Your task to perform on an android device: toggle wifi Image 0: 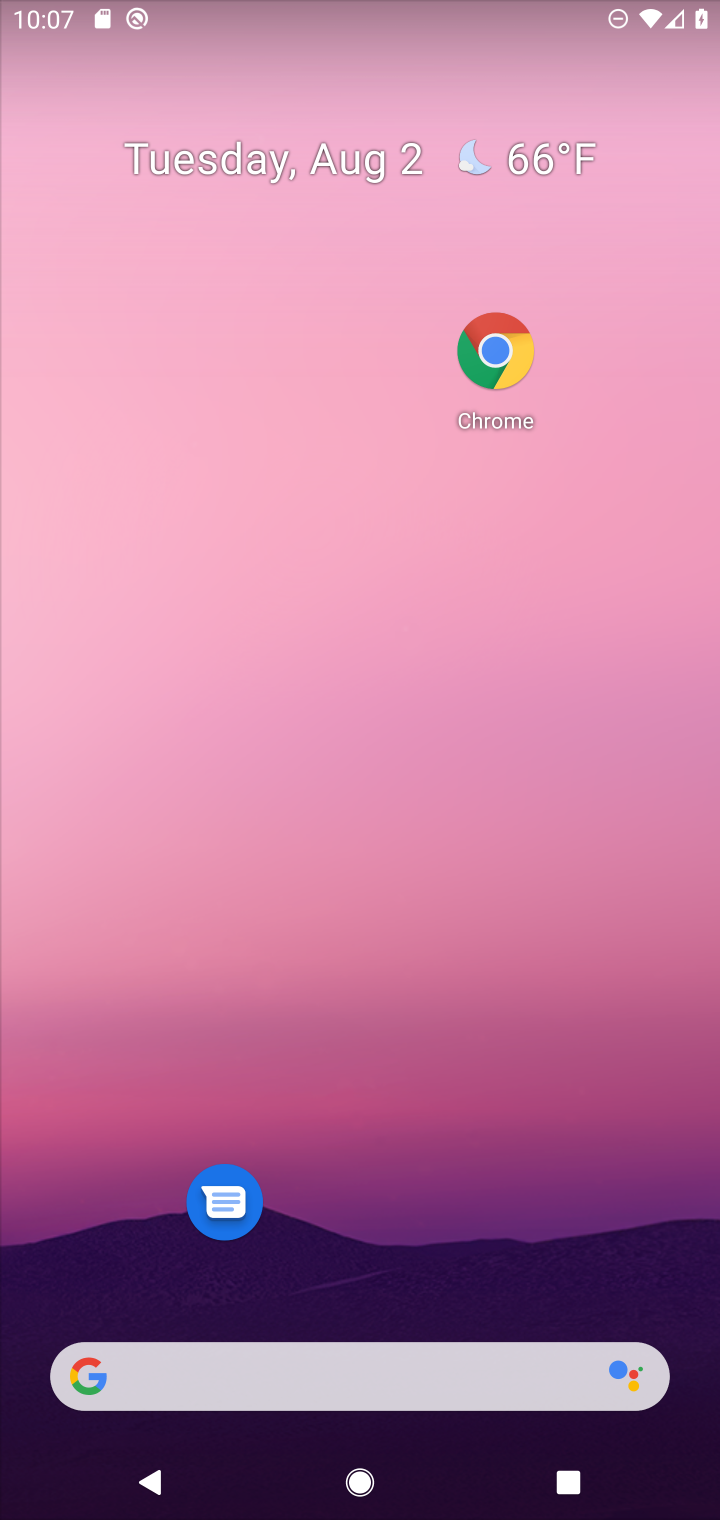
Step 0: drag from (398, 1090) to (381, 87)
Your task to perform on an android device: toggle wifi Image 1: 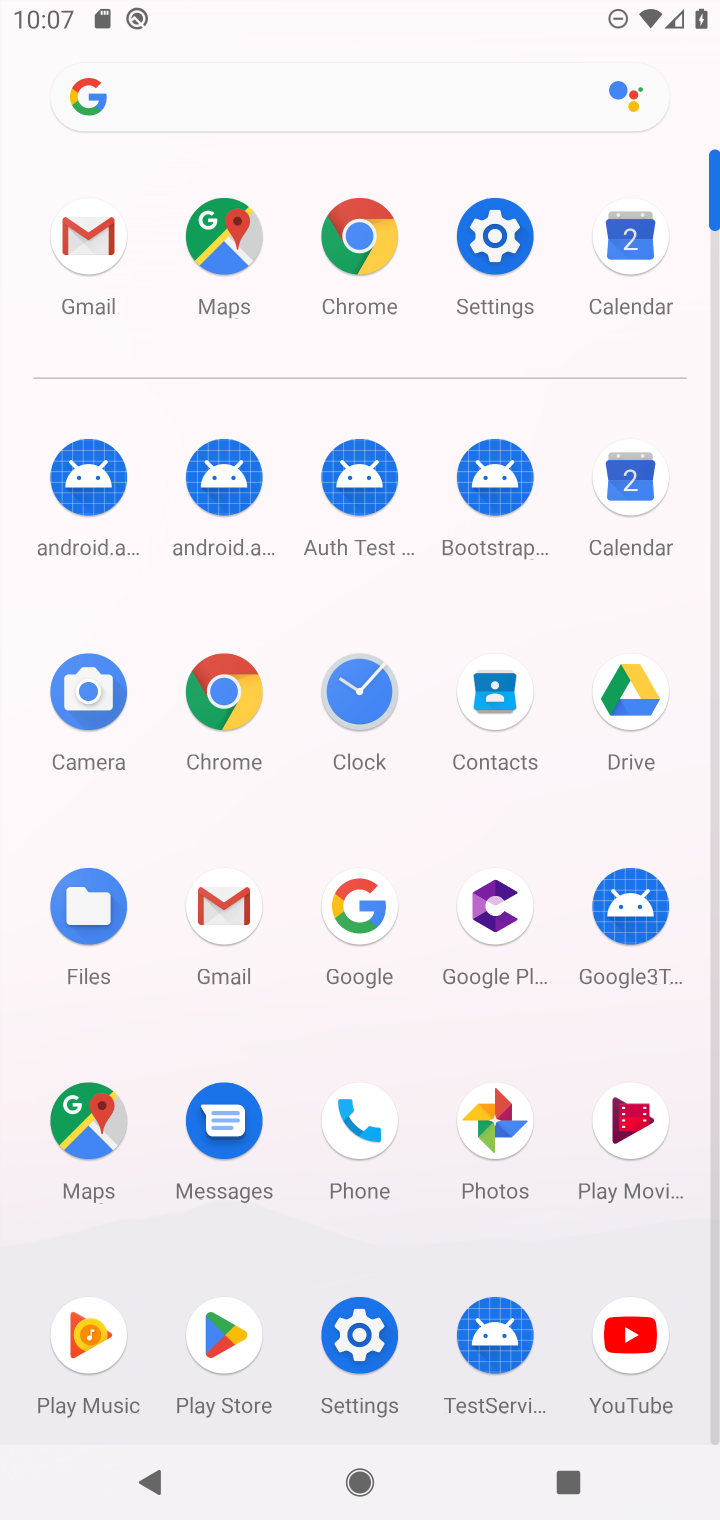
Step 1: click (498, 233)
Your task to perform on an android device: toggle wifi Image 2: 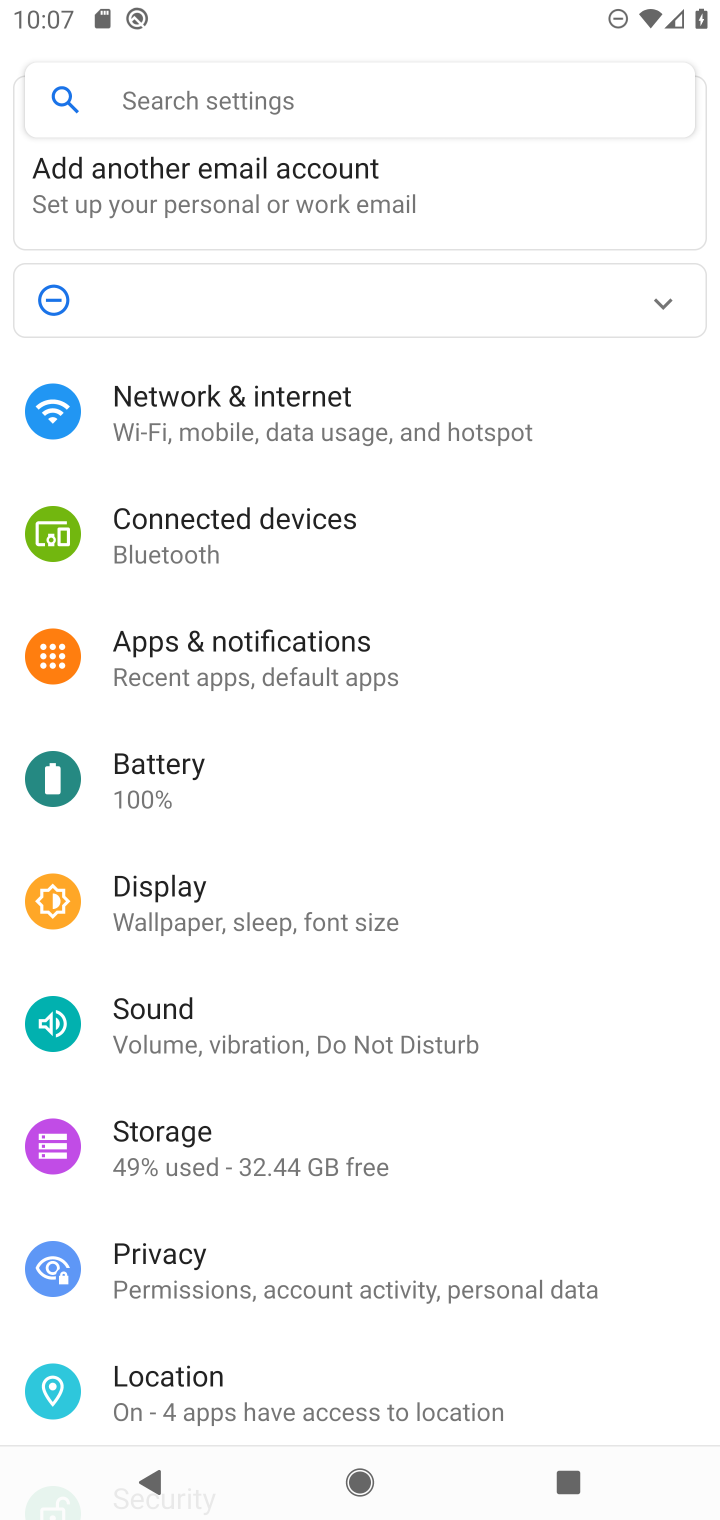
Step 2: click (170, 439)
Your task to perform on an android device: toggle wifi Image 3: 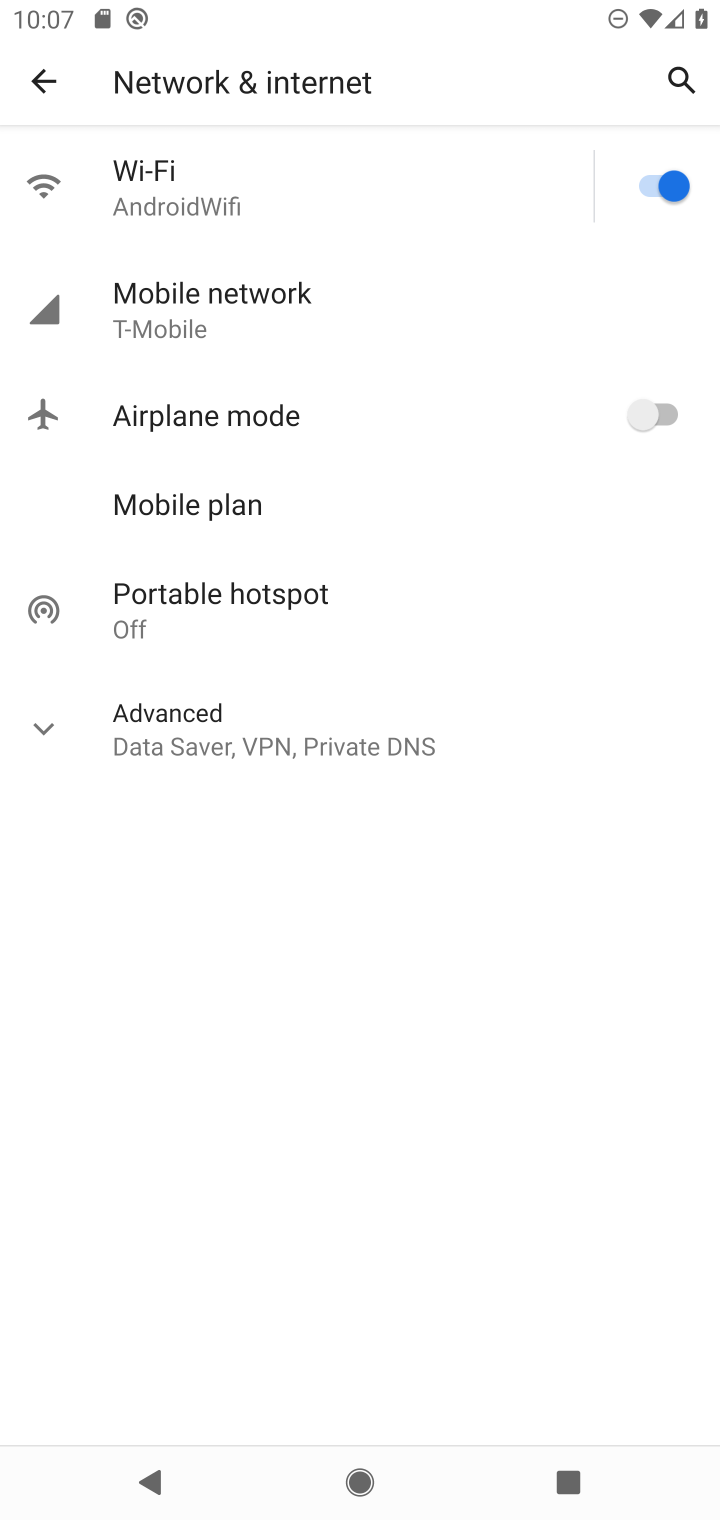
Step 3: click (661, 188)
Your task to perform on an android device: toggle wifi Image 4: 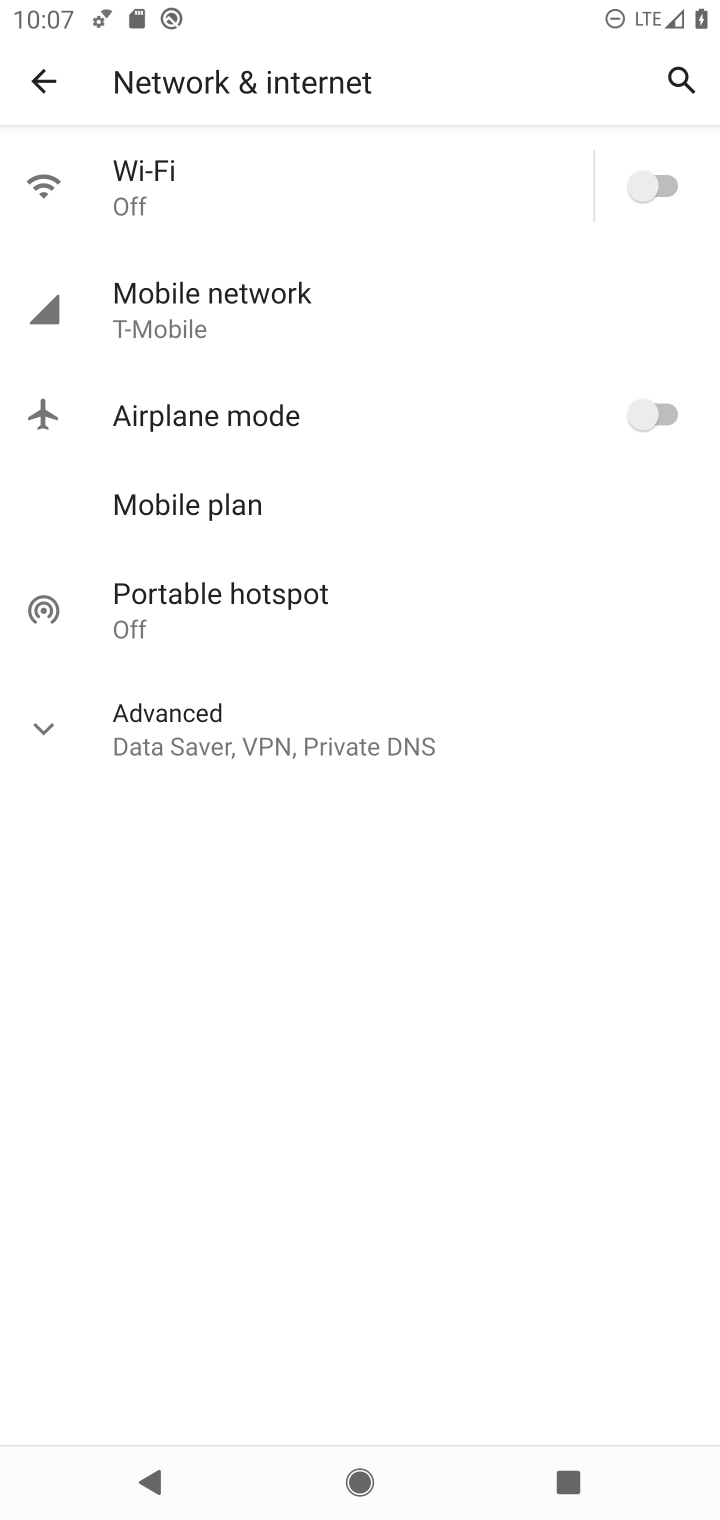
Step 4: task complete